Your task to perform on an android device: turn on wifi Image 0: 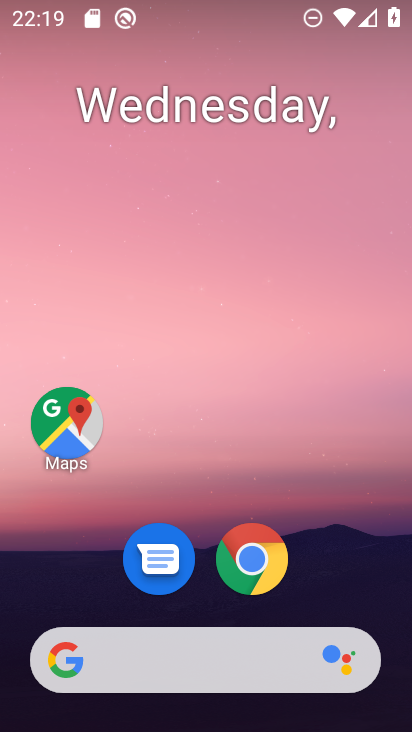
Step 0: drag from (354, 583) to (374, 193)
Your task to perform on an android device: turn on wifi Image 1: 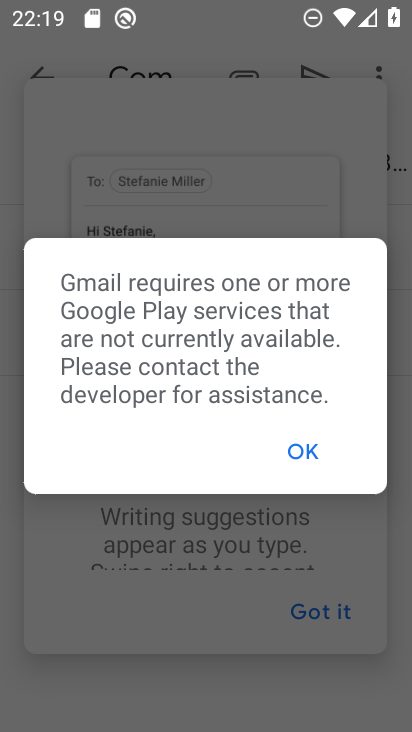
Step 1: press back button
Your task to perform on an android device: turn on wifi Image 2: 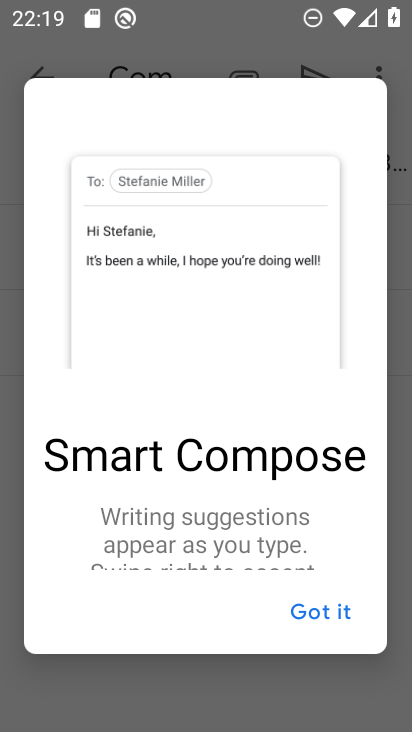
Step 2: press home button
Your task to perform on an android device: turn on wifi Image 3: 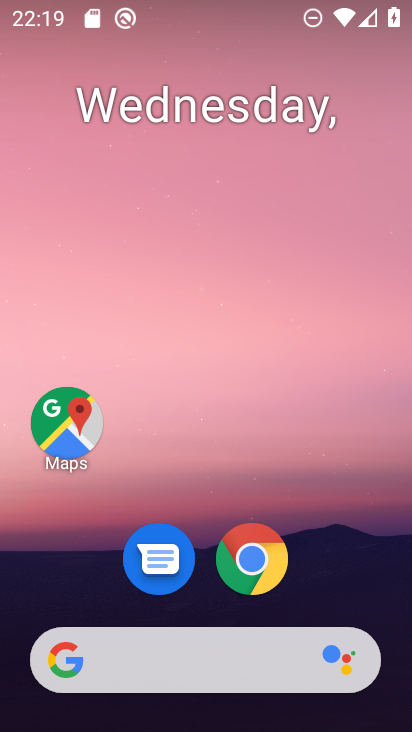
Step 3: drag from (377, 566) to (377, 199)
Your task to perform on an android device: turn on wifi Image 4: 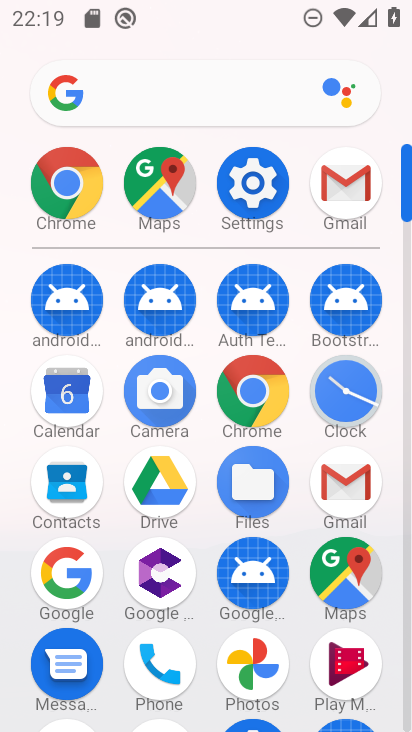
Step 4: click (268, 205)
Your task to perform on an android device: turn on wifi Image 5: 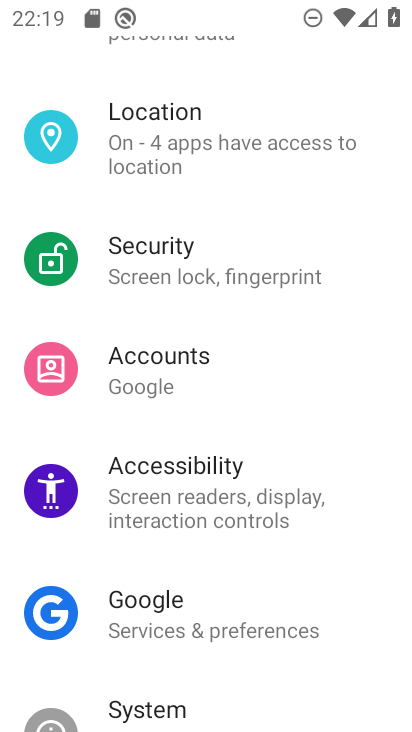
Step 5: drag from (353, 351) to (353, 426)
Your task to perform on an android device: turn on wifi Image 6: 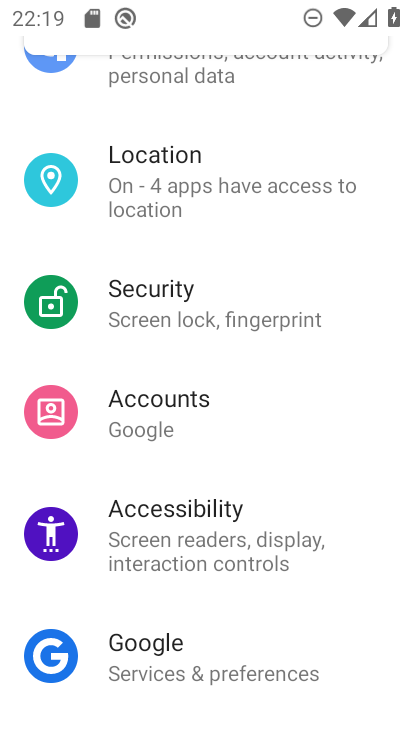
Step 6: drag from (352, 320) to (354, 406)
Your task to perform on an android device: turn on wifi Image 7: 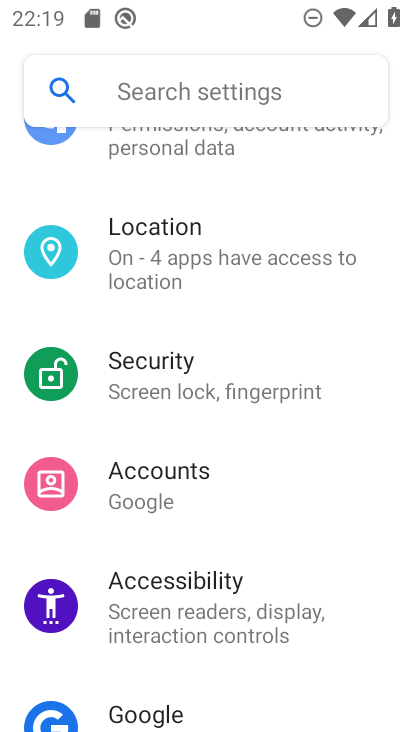
Step 7: drag from (357, 312) to (353, 412)
Your task to perform on an android device: turn on wifi Image 8: 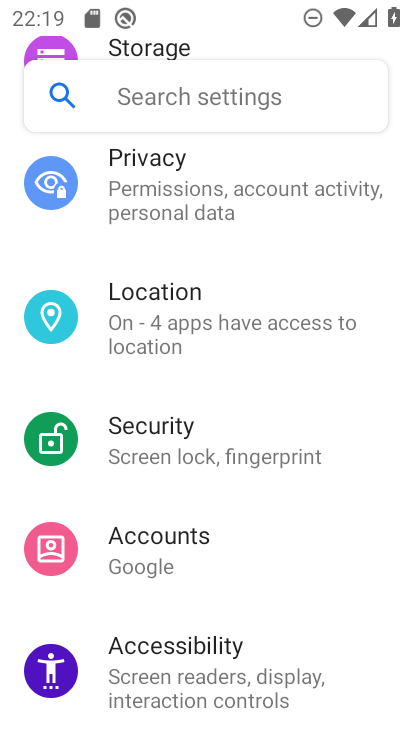
Step 8: drag from (357, 267) to (357, 369)
Your task to perform on an android device: turn on wifi Image 9: 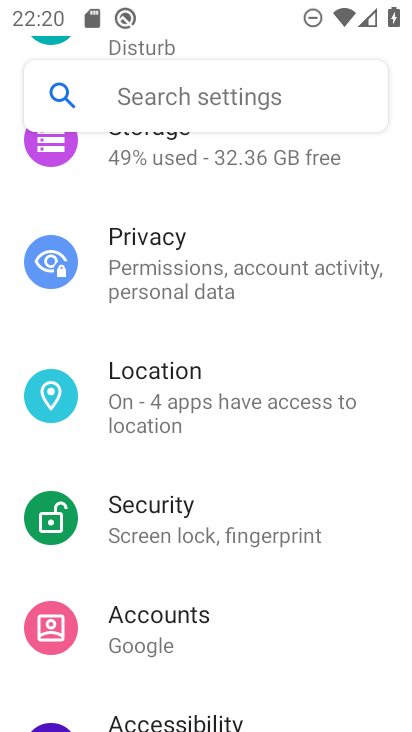
Step 9: drag from (352, 313) to (351, 390)
Your task to perform on an android device: turn on wifi Image 10: 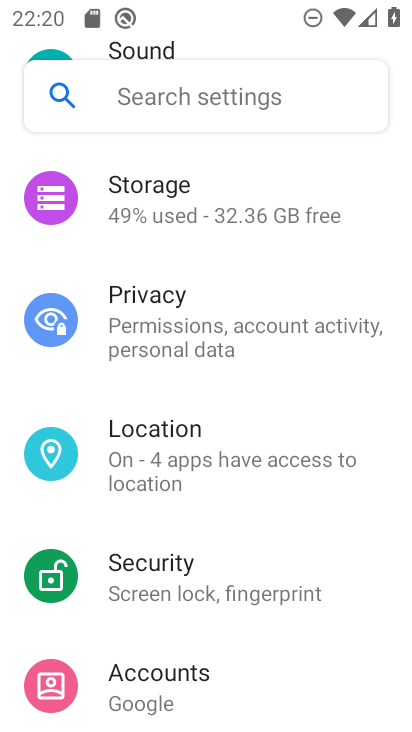
Step 10: drag from (357, 259) to (361, 373)
Your task to perform on an android device: turn on wifi Image 11: 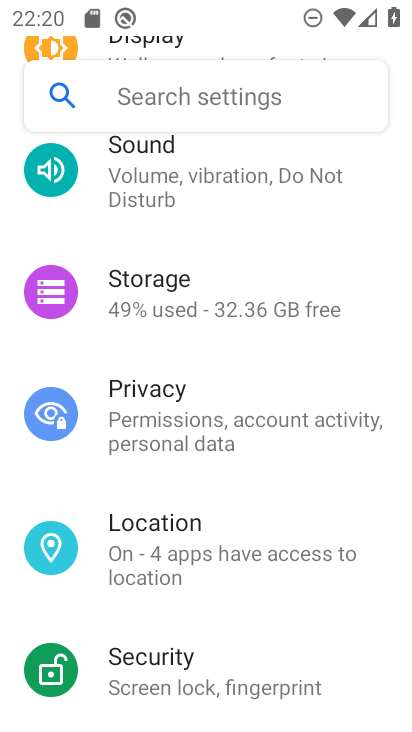
Step 11: drag from (370, 240) to (369, 342)
Your task to perform on an android device: turn on wifi Image 12: 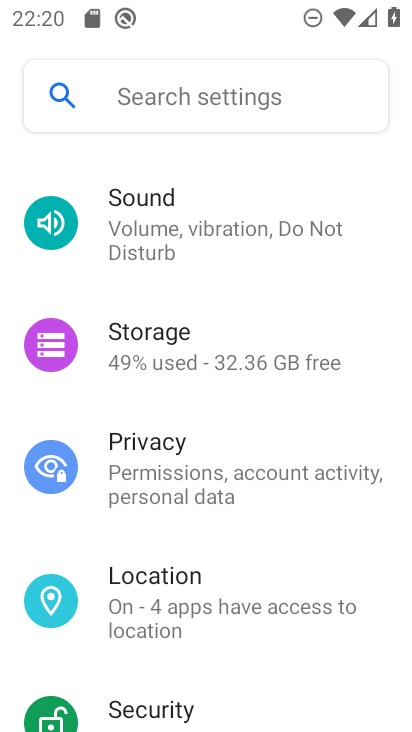
Step 12: drag from (375, 190) to (378, 309)
Your task to perform on an android device: turn on wifi Image 13: 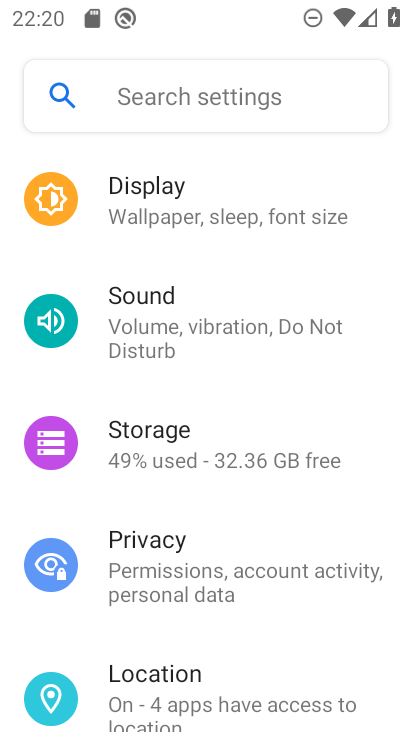
Step 13: drag from (379, 185) to (384, 299)
Your task to perform on an android device: turn on wifi Image 14: 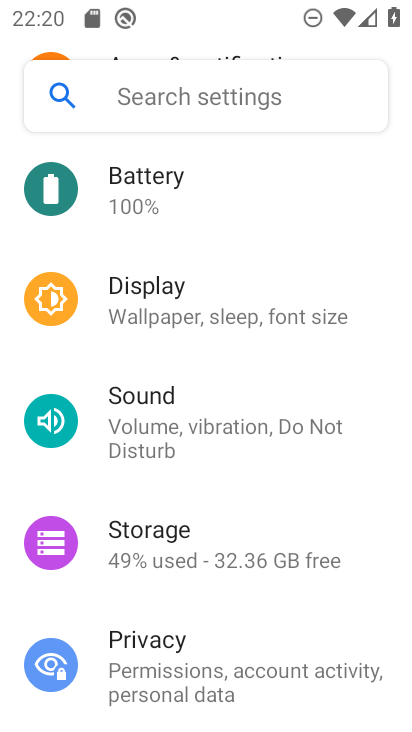
Step 14: drag from (371, 184) to (372, 292)
Your task to perform on an android device: turn on wifi Image 15: 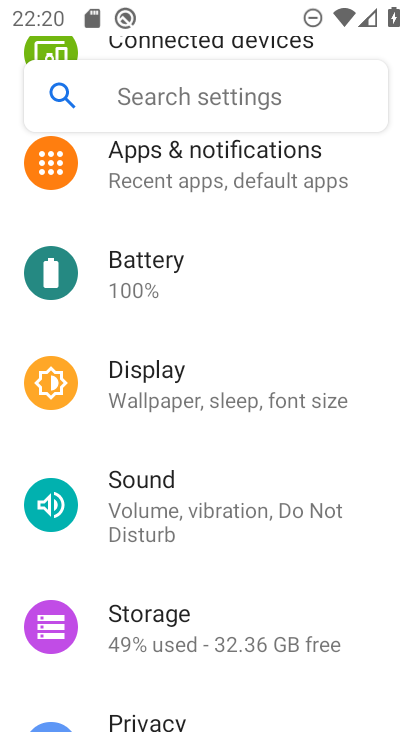
Step 15: drag from (380, 163) to (388, 326)
Your task to perform on an android device: turn on wifi Image 16: 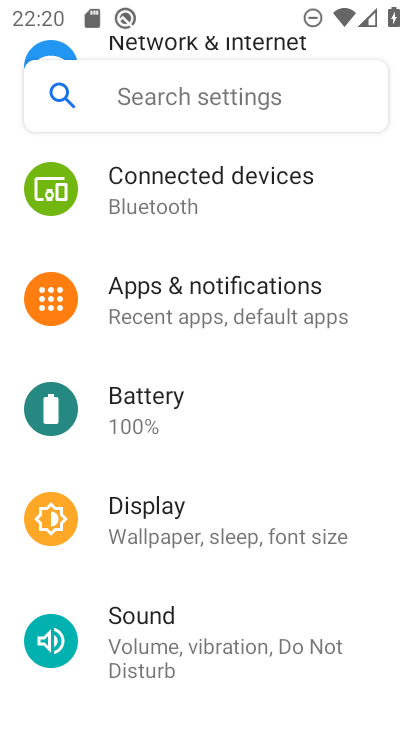
Step 16: drag from (377, 183) to (377, 307)
Your task to perform on an android device: turn on wifi Image 17: 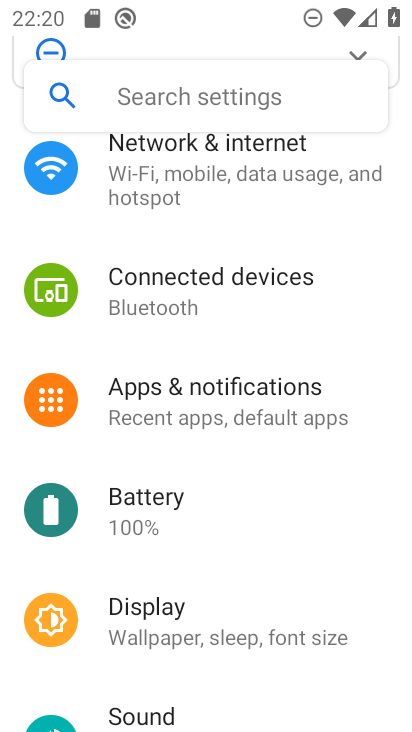
Step 17: drag from (375, 178) to (379, 323)
Your task to perform on an android device: turn on wifi Image 18: 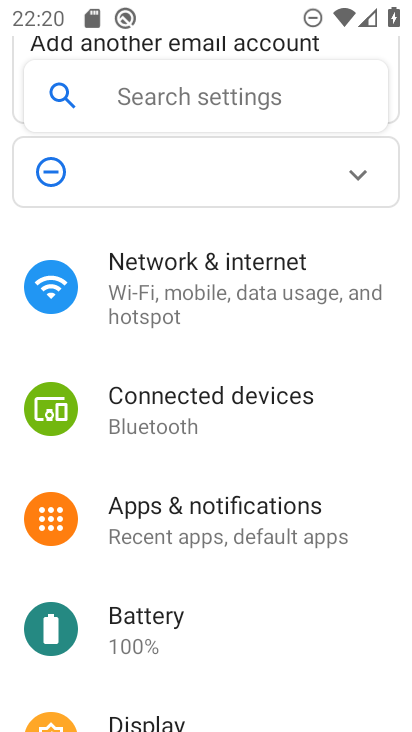
Step 18: click (315, 299)
Your task to perform on an android device: turn on wifi Image 19: 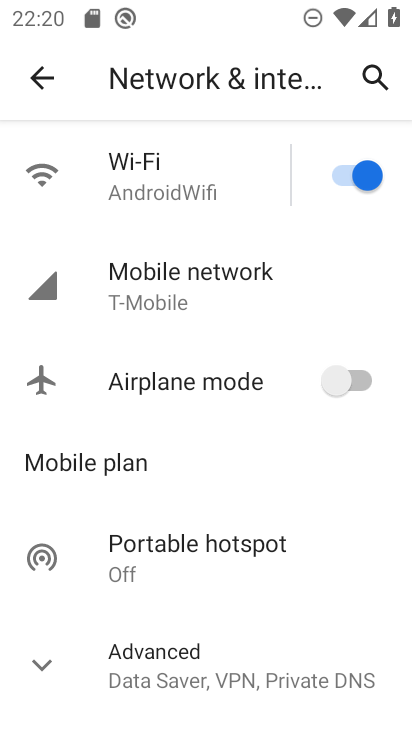
Step 19: task complete